Your task to perform on an android device: Do I have any events this weekend? Image 0: 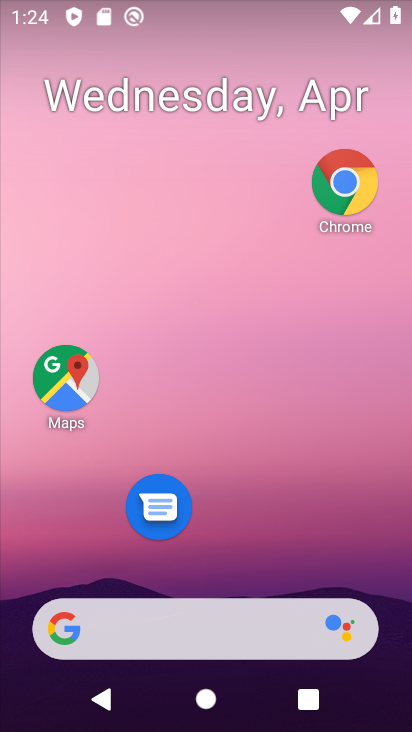
Step 0: drag from (264, 700) to (319, 38)
Your task to perform on an android device: Do I have any events this weekend? Image 1: 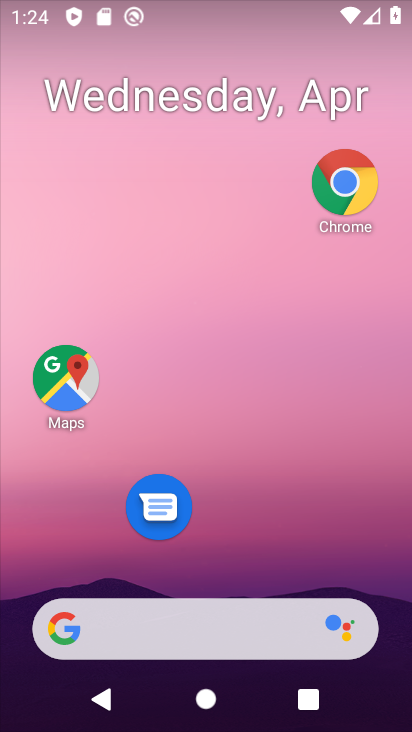
Step 1: drag from (266, 723) to (315, 16)
Your task to perform on an android device: Do I have any events this weekend? Image 2: 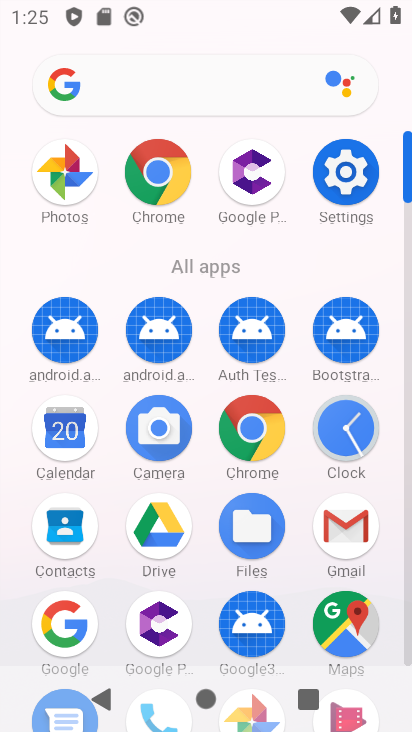
Step 2: click (57, 430)
Your task to perform on an android device: Do I have any events this weekend? Image 3: 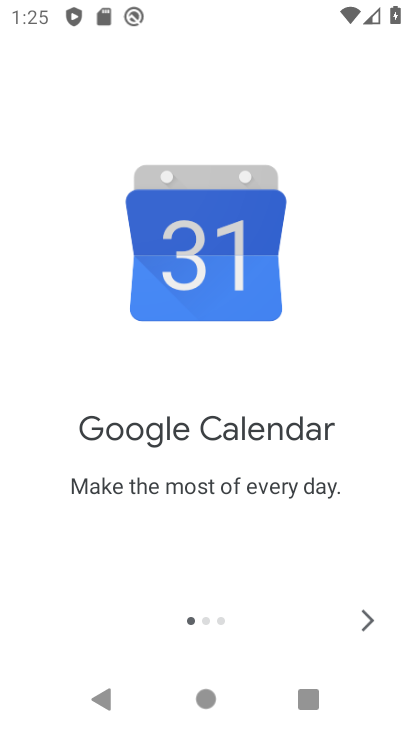
Step 3: click (359, 609)
Your task to perform on an android device: Do I have any events this weekend? Image 4: 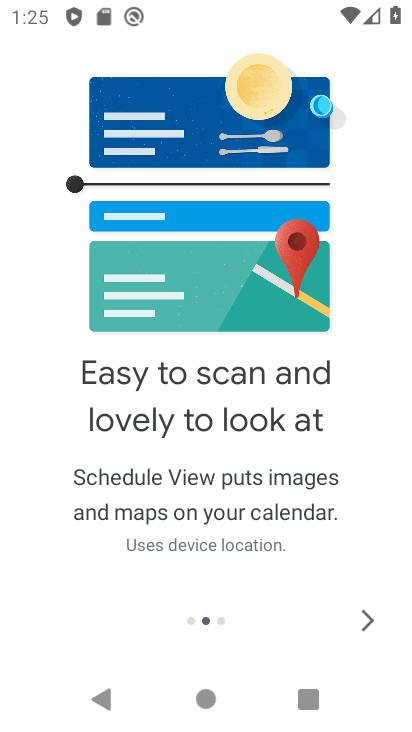
Step 4: click (359, 609)
Your task to perform on an android device: Do I have any events this weekend? Image 5: 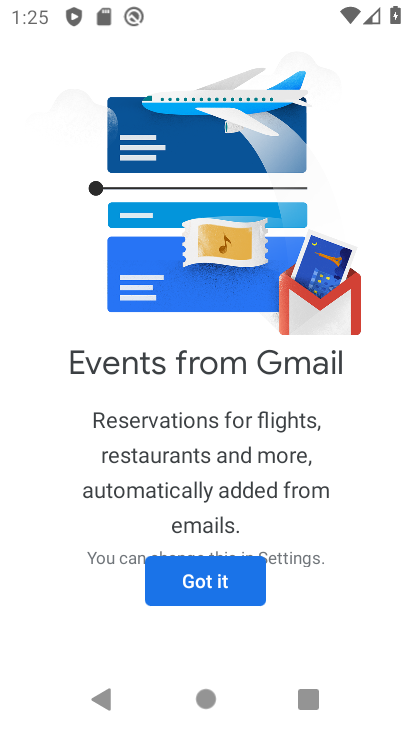
Step 5: click (212, 600)
Your task to perform on an android device: Do I have any events this weekend? Image 6: 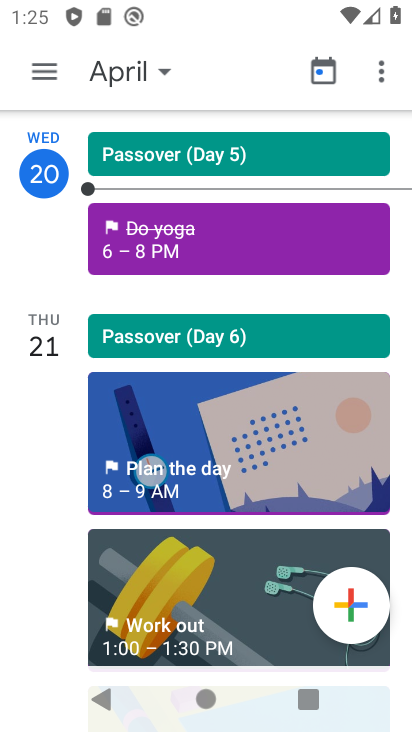
Step 6: drag from (196, 596) to (201, 418)
Your task to perform on an android device: Do I have any events this weekend? Image 7: 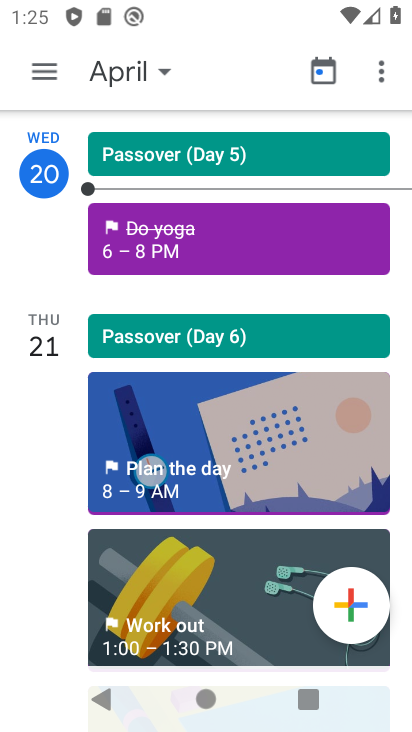
Step 7: click (116, 77)
Your task to perform on an android device: Do I have any events this weekend? Image 8: 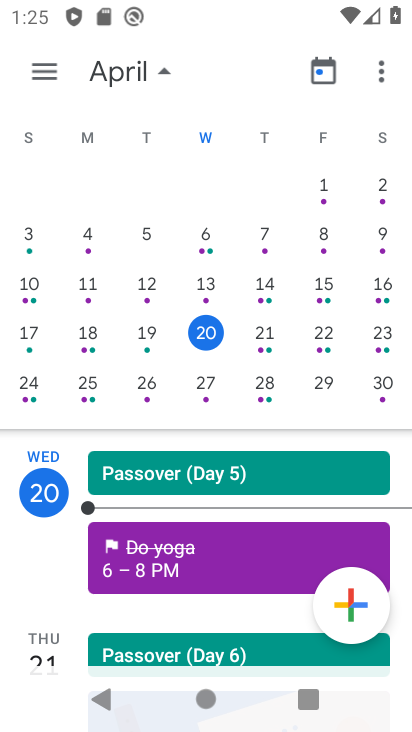
Step 8: click (370, 332)
Your task to perform on an android device: Do I have any events this weekend? Image 9: 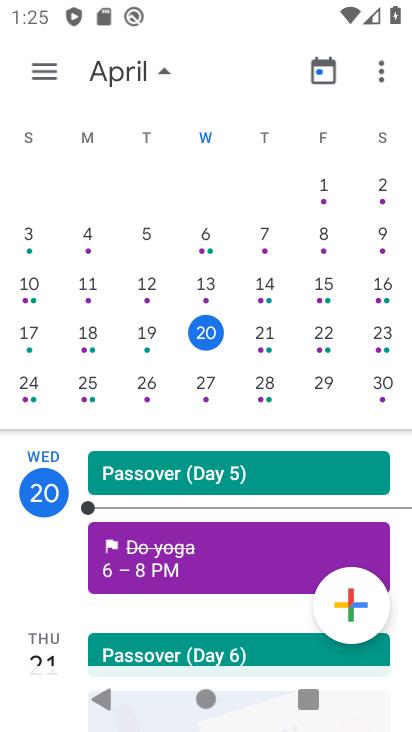
Step 9: click (378, 335)
Your task to perform on an android device: Do I have any events this weekend? Image 10: 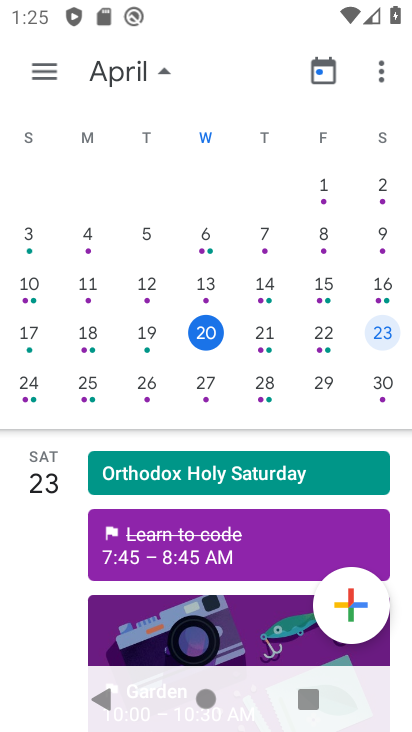
Step 10: task complete